Your task to perform on an android device: Open Google Maps and go to "Timeline" Image 0: 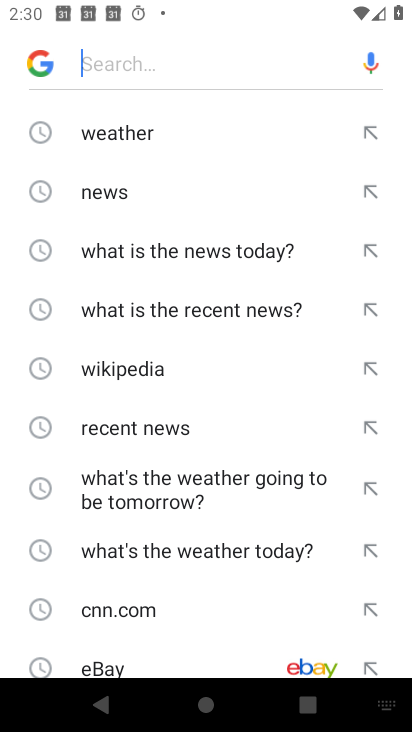
Step 0: drag from (261, 455) to (266, 236)
Your task to perform on an android device: Open Google Maps and go to "Timeline" Image 1: 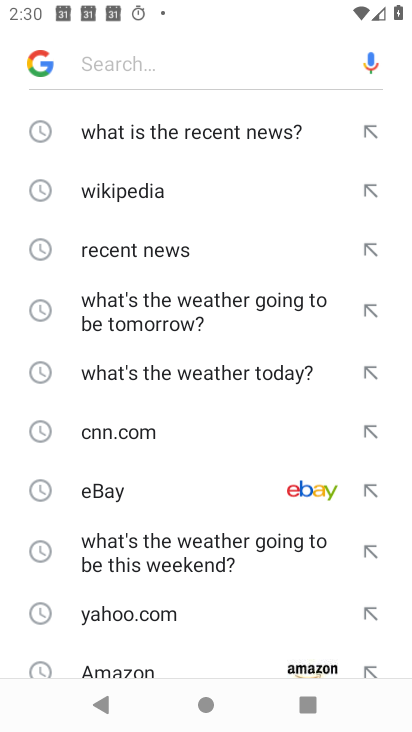
Step 1: drag from (174, 361) to (262, 677)
Your task to perform on an android device: Open Google Maps and go to "Timeline" Image 2: 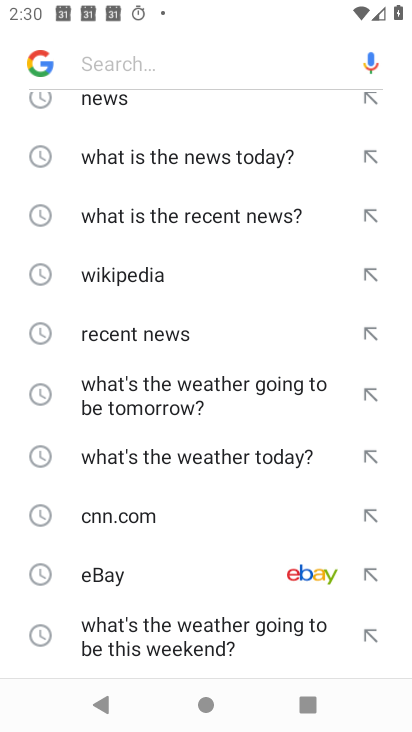
Step 2: press home button
Your task to perform on an android device: Open Google Maps and go to "Timeline" Image 3: 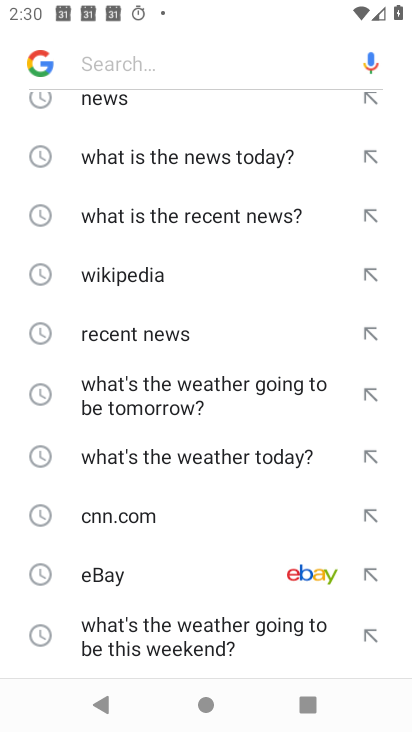
Step 3: drag from (380, 513) to (336, 104)
Your task to perform on an android device: Open Google Maps and go to "Timeline" Image 4: 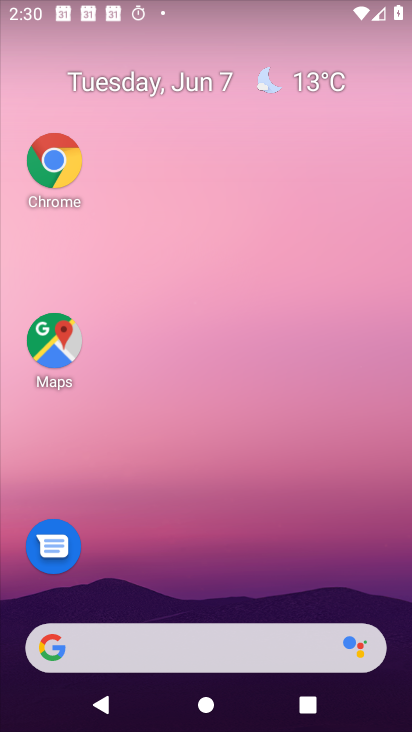
Step 4: click (56, 330)
Your task to perform on an android device: Open Google Maps and go to "Timeline" Image 5: 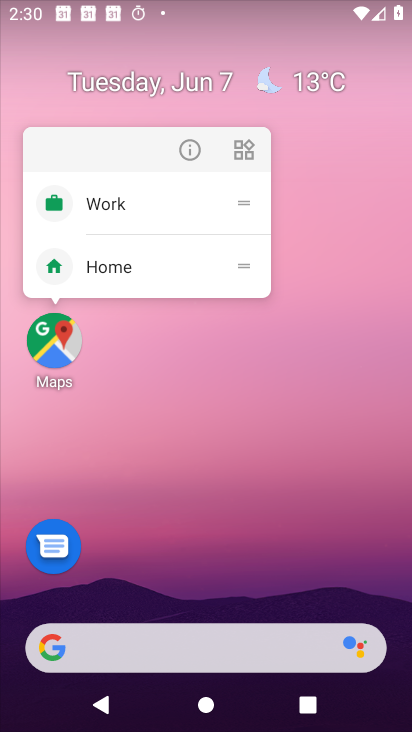
Step 5: click (196, 144)
Your task to perform on an android device: Open Google Maps and go to "Timeline" Image 6: 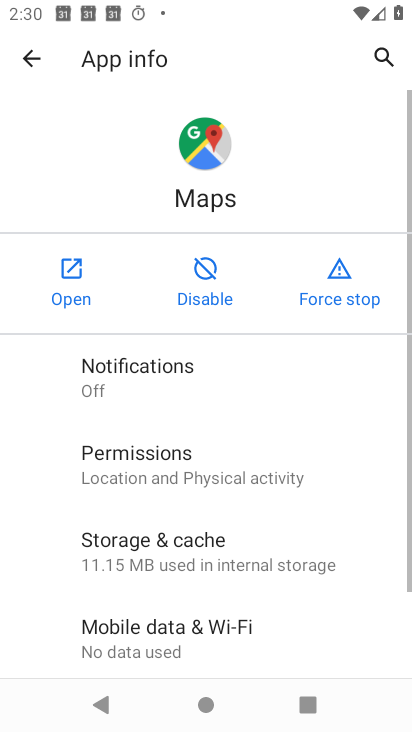
Step 6: click (36, 273)
Your task to perform on an android device: Open Google Maps and go to "Timeline" Image 7: 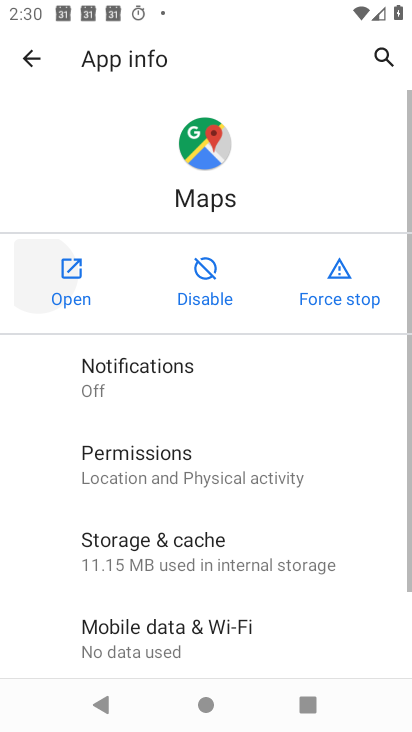
Step 7: click (86, 272)
Your task to perform on an android device: Open Google Maps and go to "Timeline" Image 8: 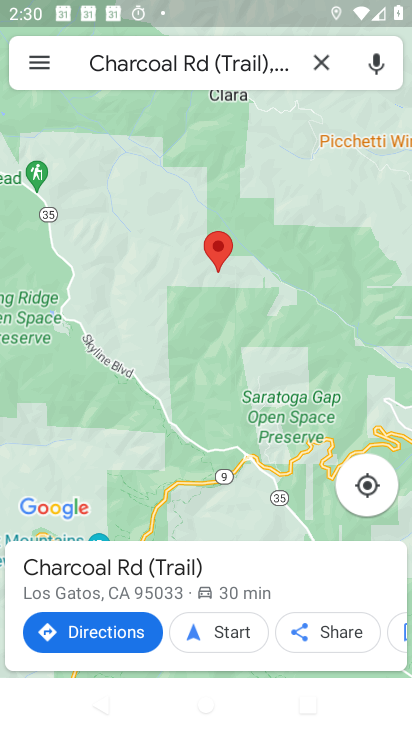
Step 8: click (40, 66)
Your task to perform on an android device: Open Google Maps and go to "Timeline" Image 9: 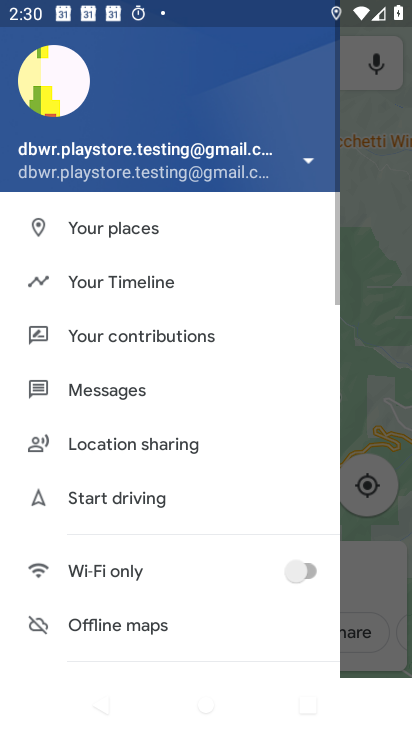
Step 9: click (126, 275)
Your task to perform on an android device: Open Google Maps and go to "Timeline" Image 10: 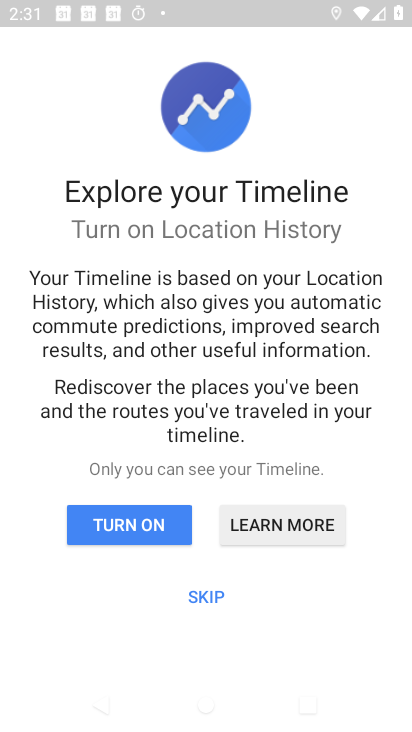
Step 10: click (114, 539)
Your task to perform on an android device: Open Google Maps and go to "Timeline" Image 11: 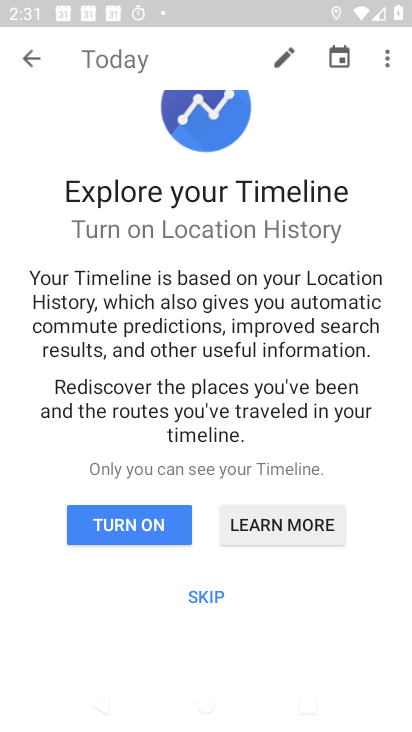
Step 11: task complete